Your task to perform on an android device: Show me popular videos on Youtube Image 0: 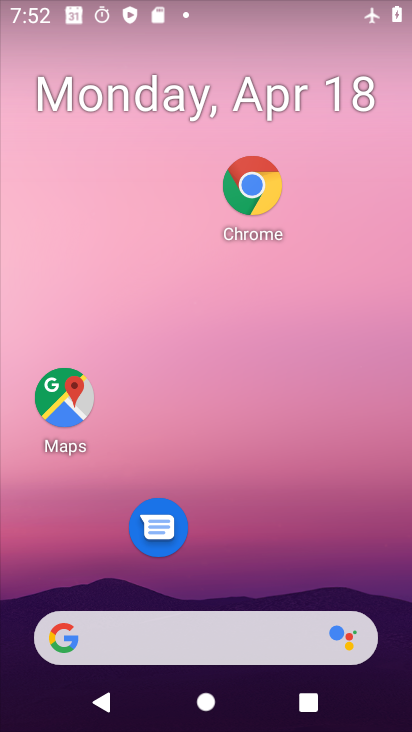
Step 0: drag from (227, 566) to (297, 114)
Your task to perform on an android device: Show me popular videos on Youtube Image 1: 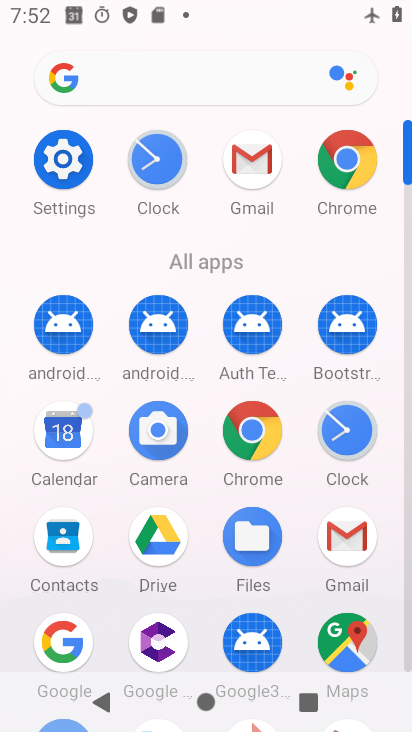
Step 1: drag from (301, 595) to (340, 184)
Your task to perform on an android device: Show me popular videos on Youtube Image 2: 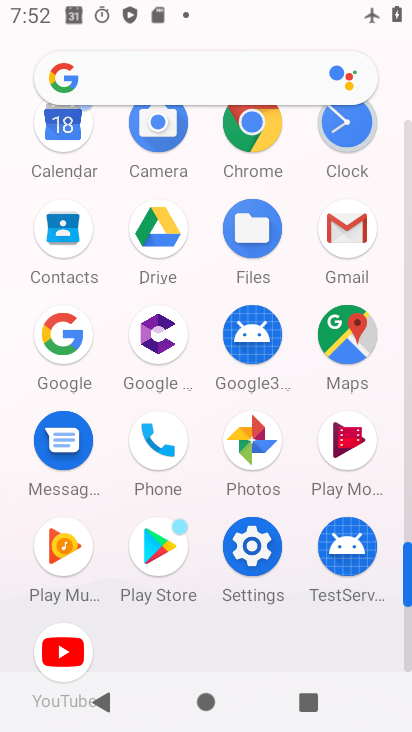
Step 2: click (68, 643)
Your task to perform on an android device: Show me popular videos on Youtube Image 3: 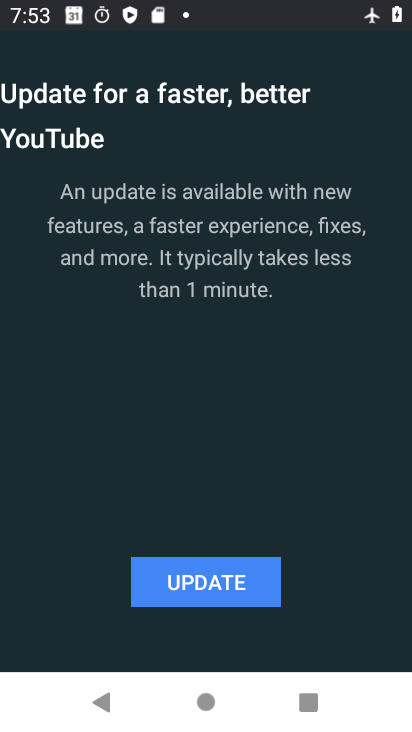
Step 3: press back button
Your task to perform on an android device: Show me popular videos on Youtube Image 4: 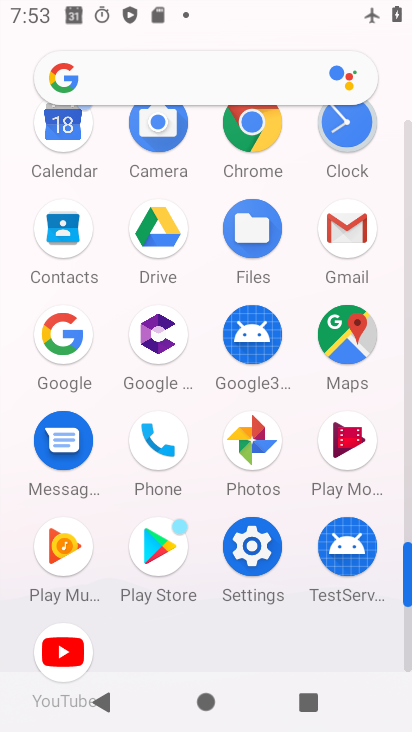
Step 4: click (51, 651)
Your task to perform on an android device: Show me popular videos on Youtube Image 5: 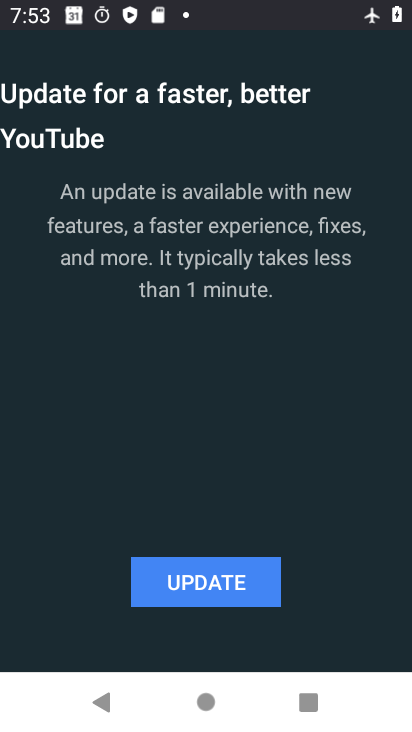
Step 5: click (217, 575)
Your task to perform on an android device: Show me popular videos on Youtube Image 6: 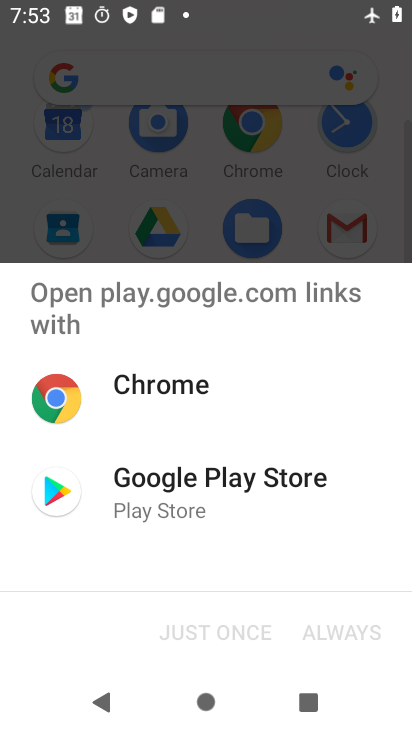
Step 6: click (240, 398)
Your task to perform on an android device: Show me popular videos on Youtube Image 7: 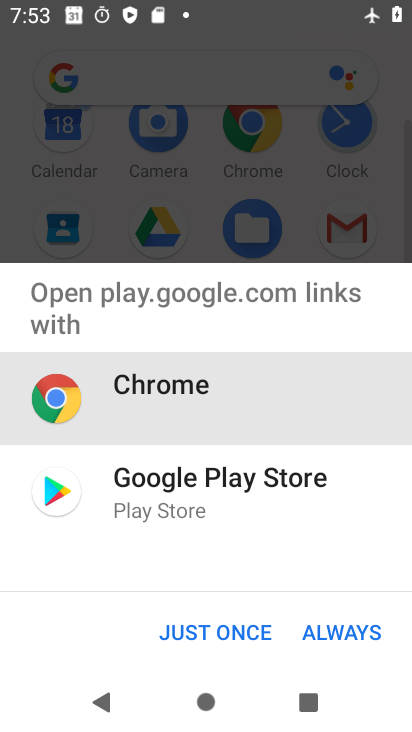
Step 7: click (327, 646)
Your task to perform on an android device: Show me popular videos on Youtube Image 8: 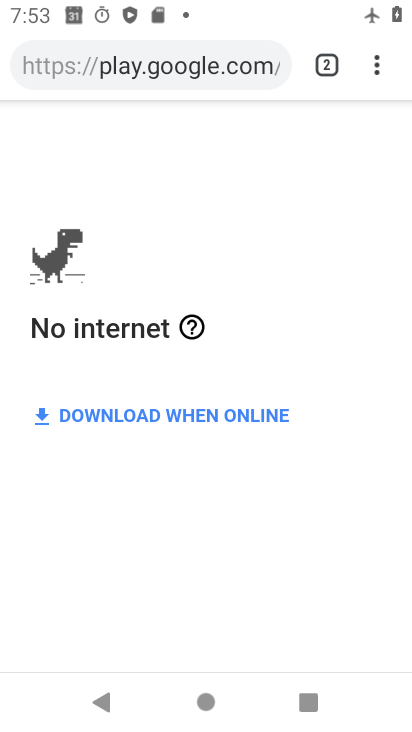
Step 8: task complete